Your task to perform on an android device: turn notification dots off Image 0: 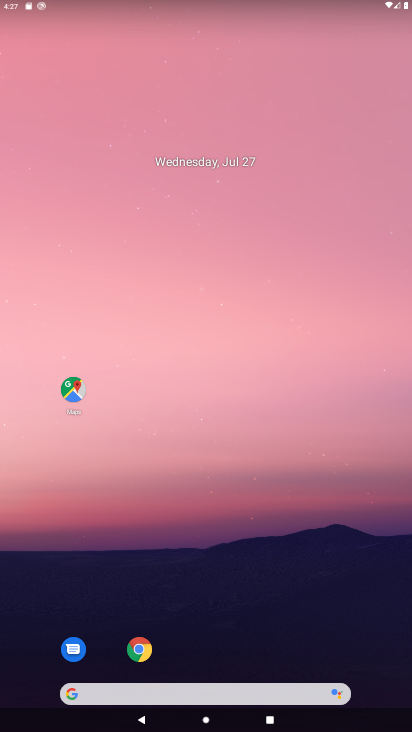
Step 0: drag from (194, 692) to (371, 1)
Your task to perform on an android device: turn notification dots off Image 1: 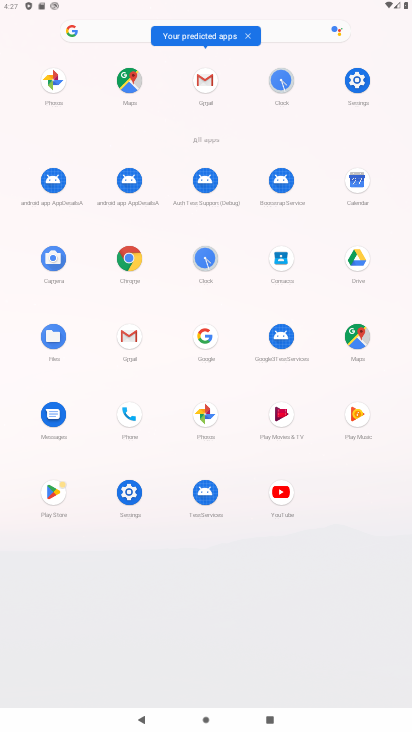
Step 1: click (129, 492)
Your task to perform on an android device: turn notification dots off Image 2: 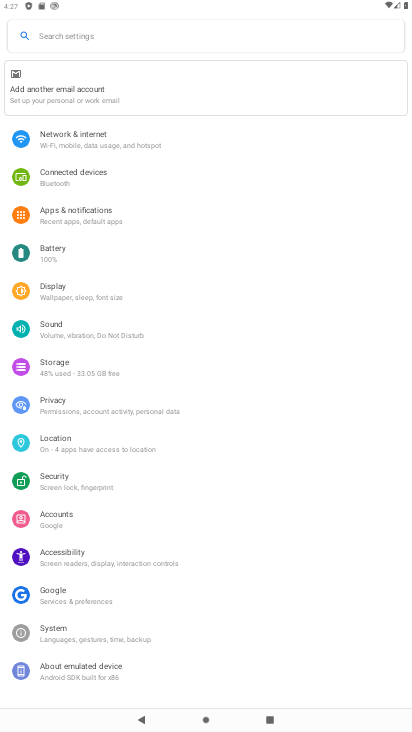
Step 2: click (88, 209)
Your task to perform on an android device: turn notification dots off Image 3: 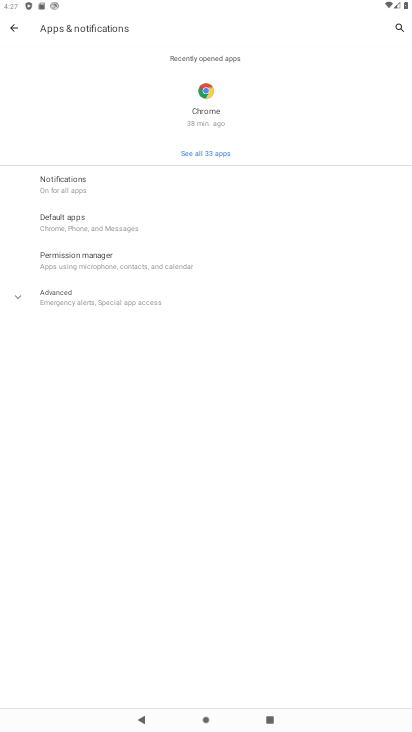
Step 3: click (76, 185)
Your task to perform on an android device: turn notification dots off Image 4: 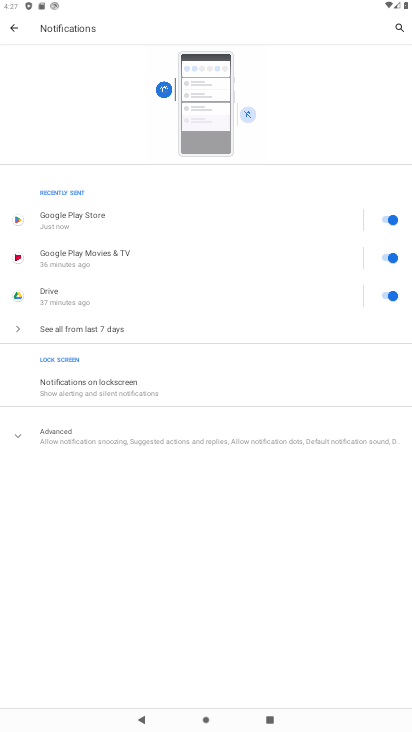
Step 4: click (163, 439)
Your task to perform on an android device: turn notification dots off Image 5: 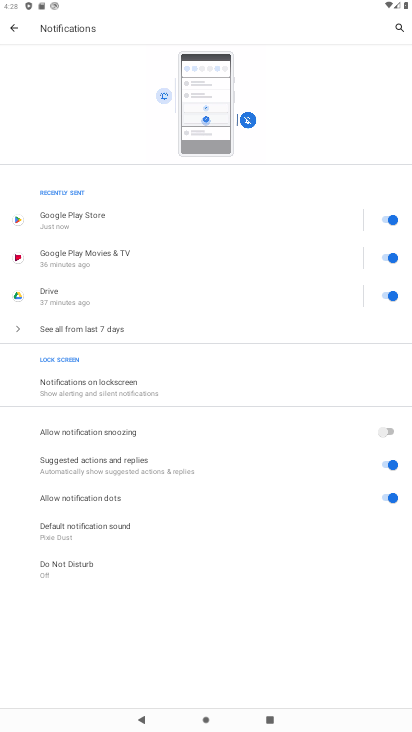
Step 5: click (385, 497)
Your task to perform on an android device: turn notification dots off Image 6: 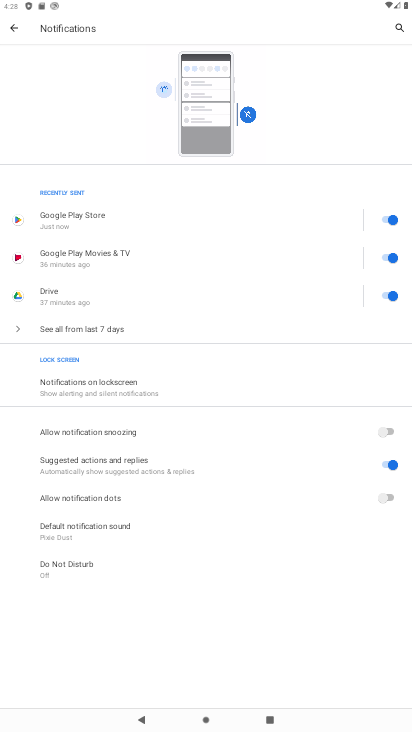
Step 6: task complete